Your task to perform on an android device: Go to Android settings Image 0: 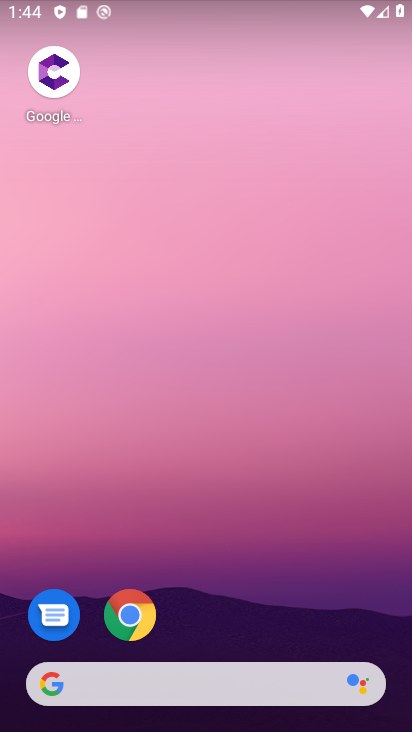
Step 0: drag from (200, 564) to (280, 63)
Your task to perform on an android device: Go to Android settings Image 1: 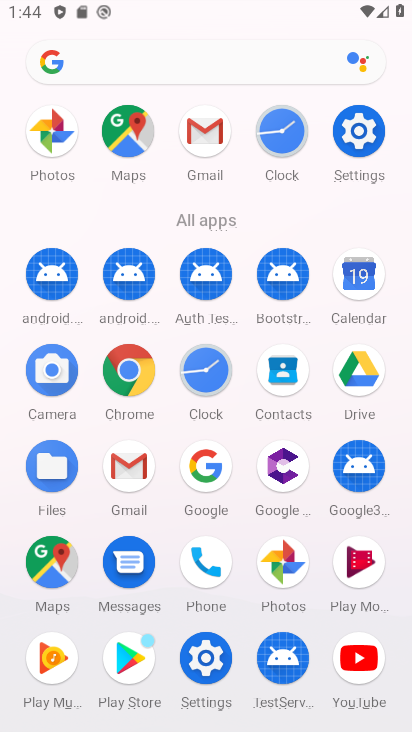
Step 1: drag from (230, 629) to (271, 122)
Your task to perform on an android device: Go to Android settings Image 2: 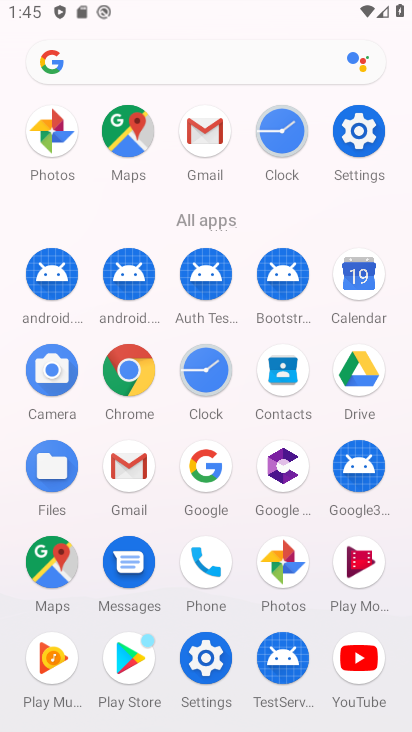
Step 2: click (211, 671)
Your task to perform on an android device: Go to Android settings Image 3: 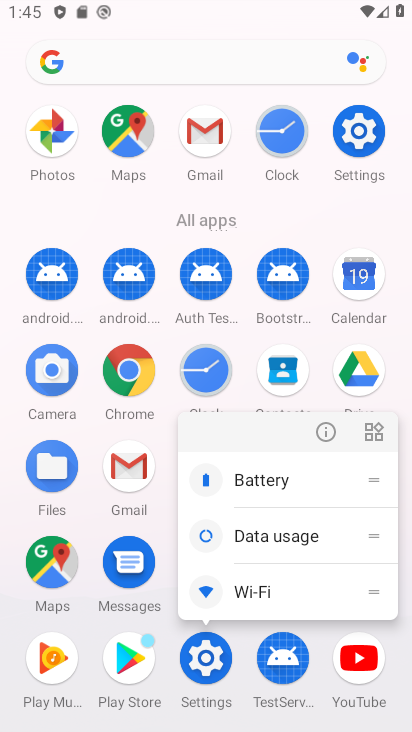
Step 3: click (331, 428)
Your task to perform on an android device: Go to Android settings Image 4: 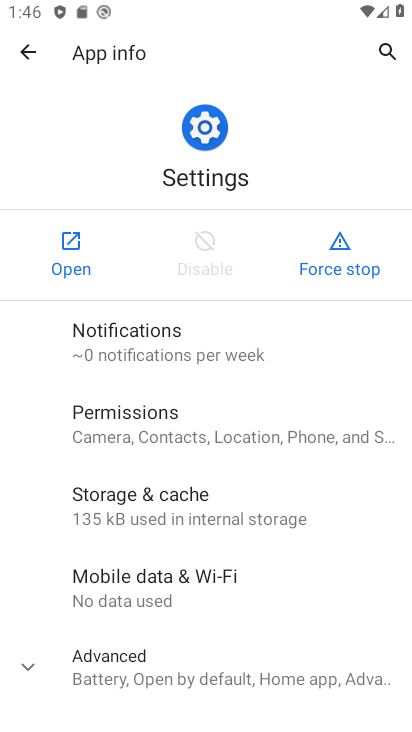
Step 4: click (78, 243)
Your task to perform on an android device: Go to Android settings Image 5: 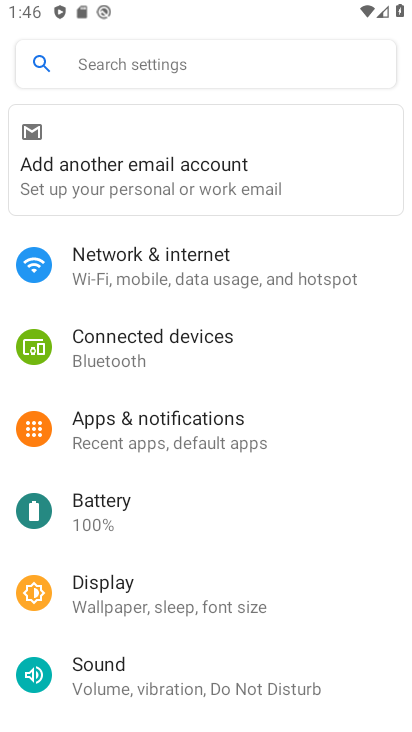
Step 5: drag from (249, 588) to (291, 206)
Your task to perform on an android device: Go to Android settings Image 6: 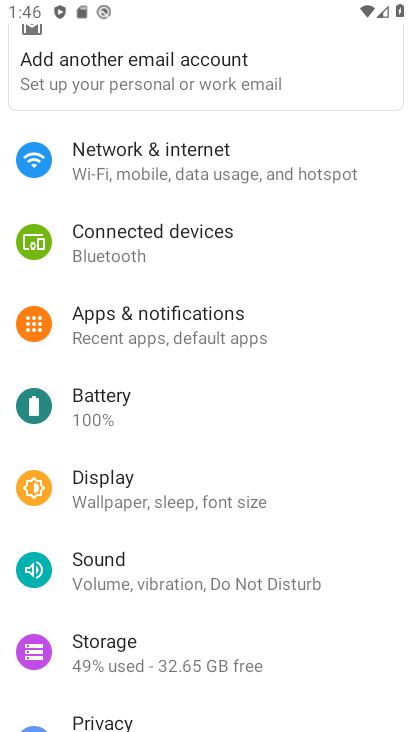
Step 6: drag from (234, 391) to (258, 236)
Your task to perform on an android device: Go to Android settings Image 7: 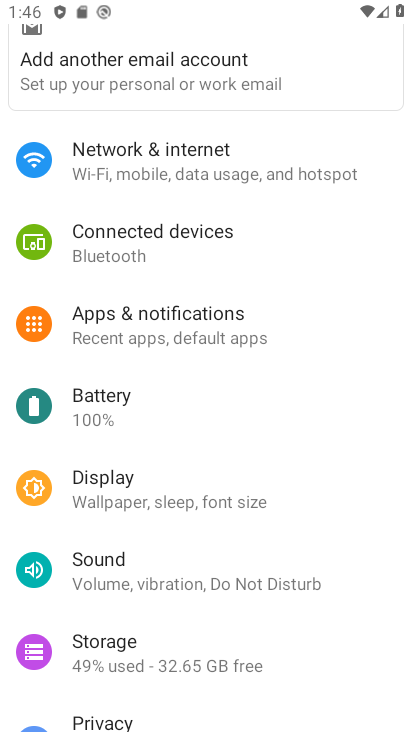
Step 7: drag from (240, 549) to (314, 0)
Your task to perform on an android device: Go to Android settings Image 8: 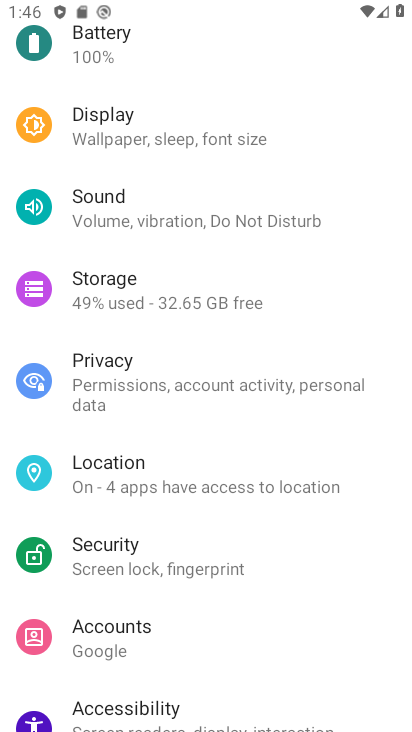
Step 8: drag from (167, 407) to (201, 149)
Your task to perform on an android device: Go to Android settings Image 9: 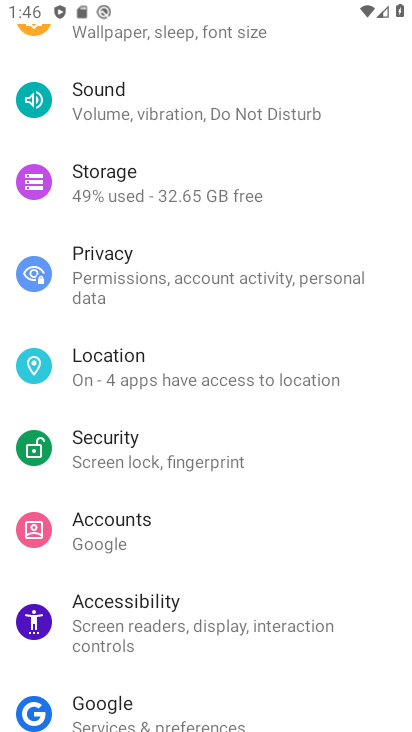
Step 9: drag from (211, 667) to (286, 115)
Your task to perform on an android device: Go to Android settings Image 10: 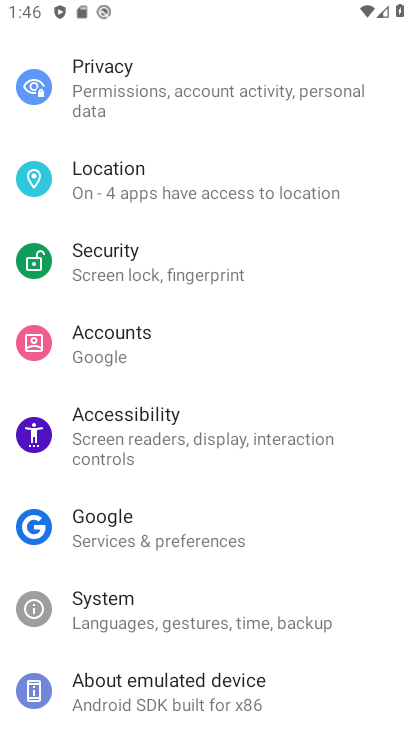
Step 10: click (154, 682)
Your task to perform on an android device: Go to Android settings Image 11: 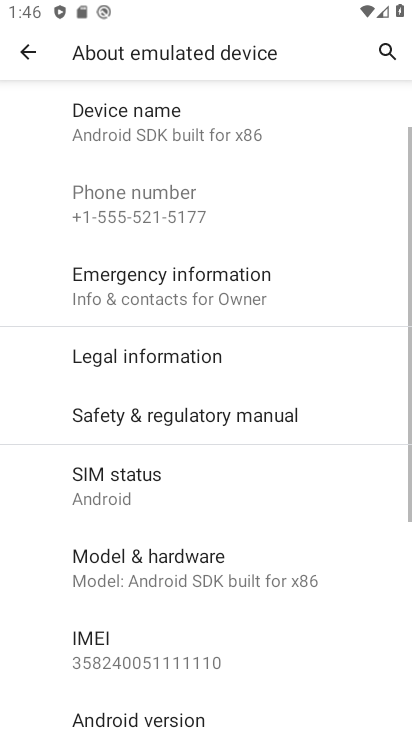
Step 11: drag from (215, 655) to (253, 111)
Your task to perform on an android device: Go to Android settings Image 12: 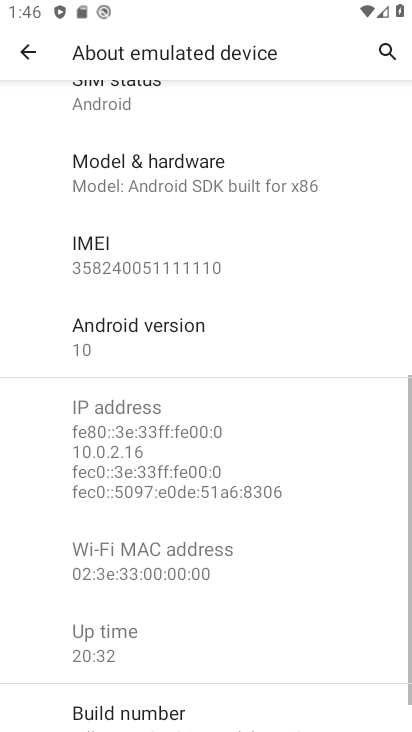
Step 12: click (181, 339)
Your task to perform on an android device: Go to Android settings Image 13: 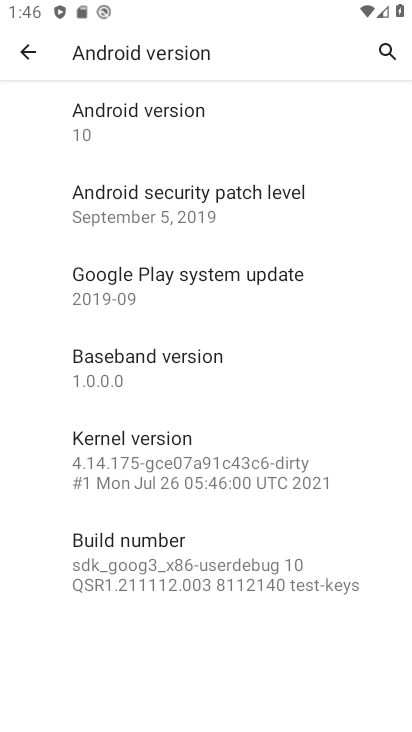
Step 13: click (169, 129)
Your task to perform on an android device: Go to Android settings Image 14: 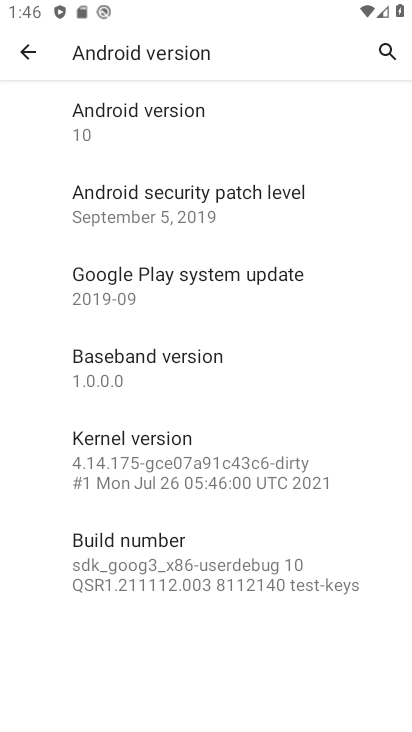
Step 14: task complete